Your task to perform on an android device: Open sound settings Image 0: 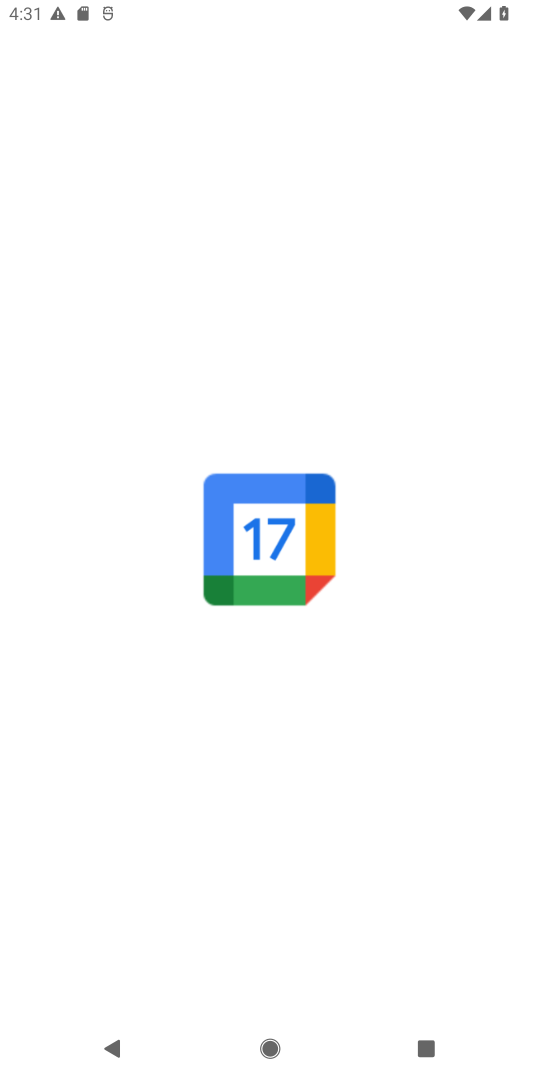
Step 0: press home button
Your task to perform on an android device: Open sound settings Image 1: 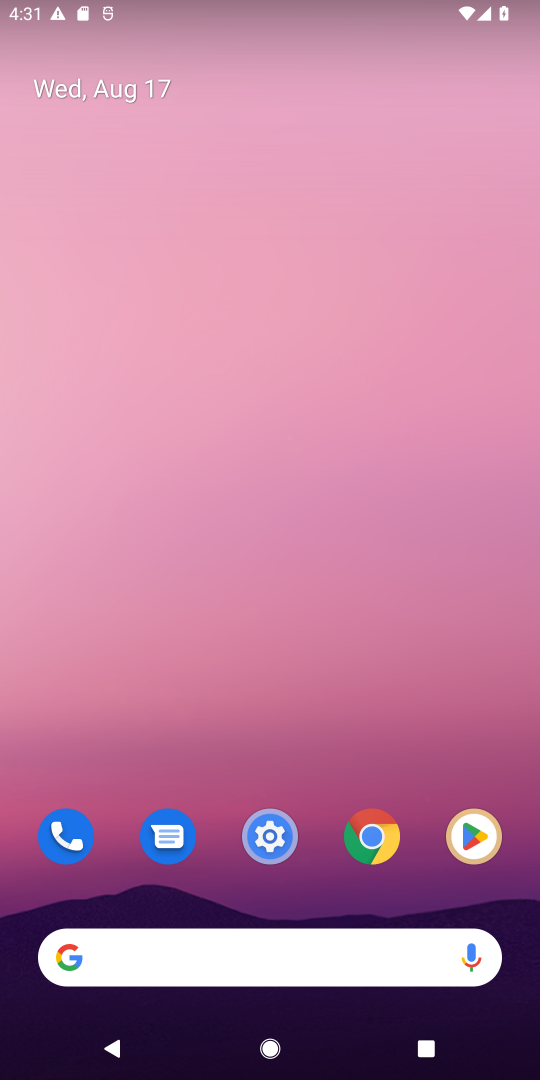
Step 1: click (272, 836)
Your task to perform on an android device: Open sound settings Image 2: 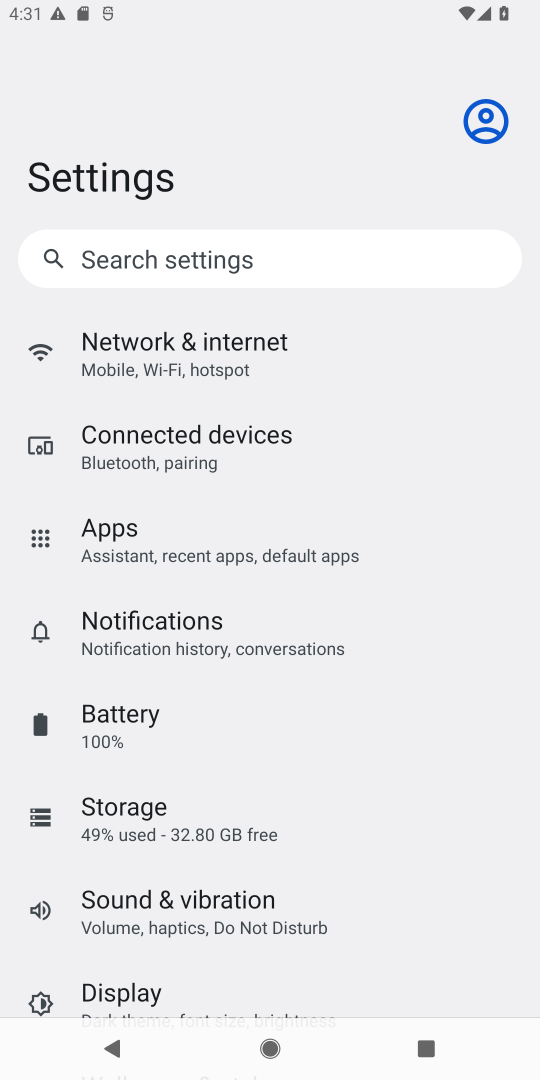
Step 2: click (197, 915)
Your task to perform on an android device: Open sound settings Image 3: 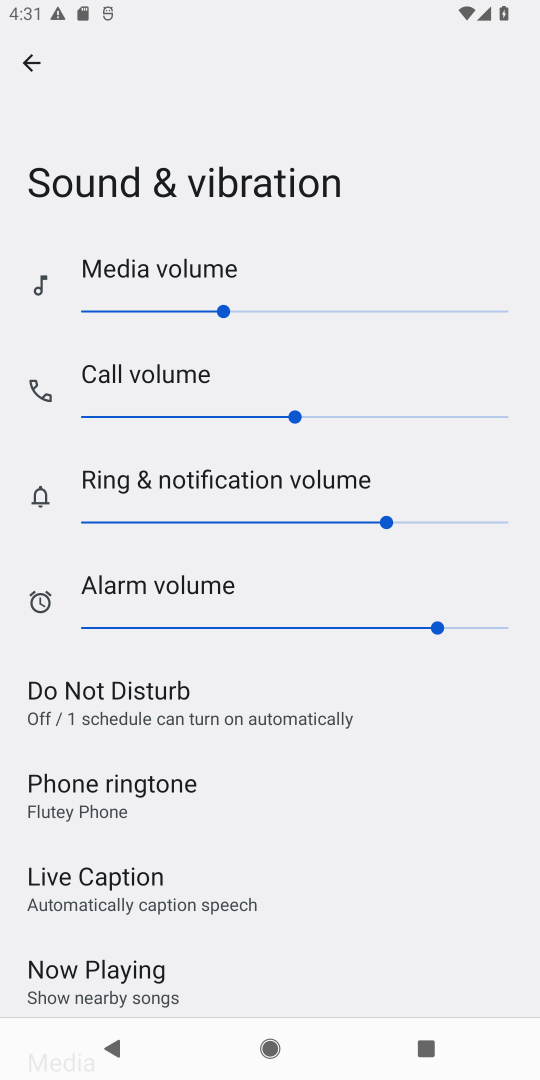
Step 3: task complete